Your task to perform on an android device: Open the calendar and show me this week's events? Image 0: 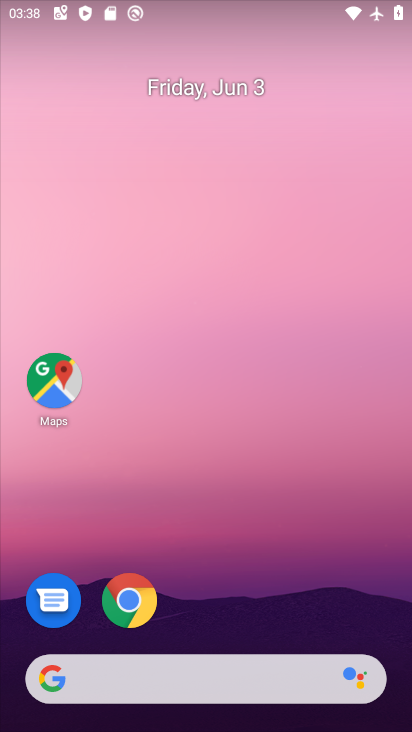
Step 0: drag from (221, 570) to (330, 47)
Your task to perform on an android device: Open the calendar and show me this week's events? Image 1: 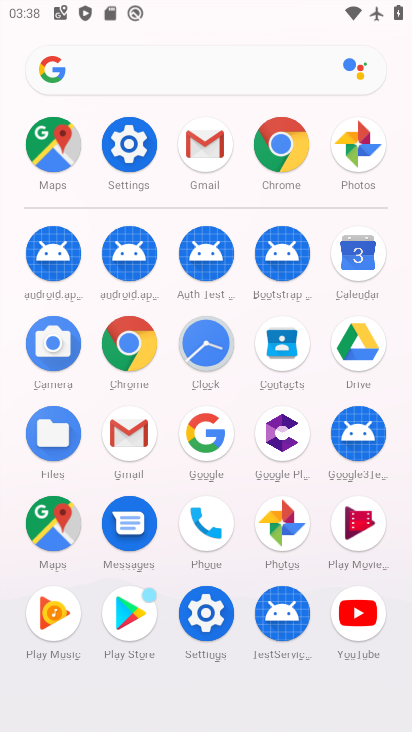
Step 1: click (365, 259)
Your task to perform on an android device: Open the calendar and show me this week's events? Image 2: 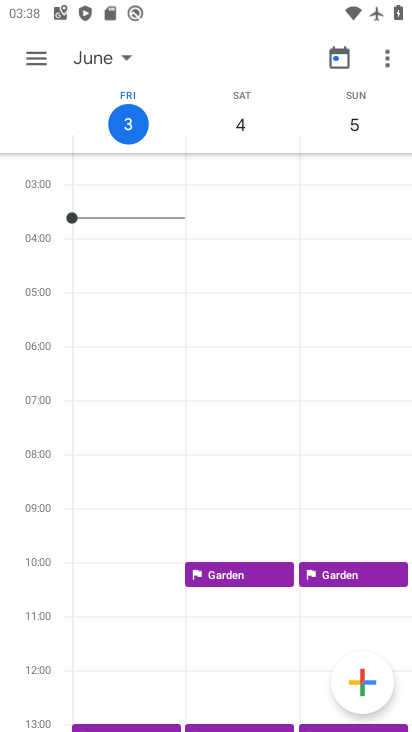
Step 2: click (35, 53)
Your task to perform on an android device: Open the calendar and show me this week's events? Image 3: 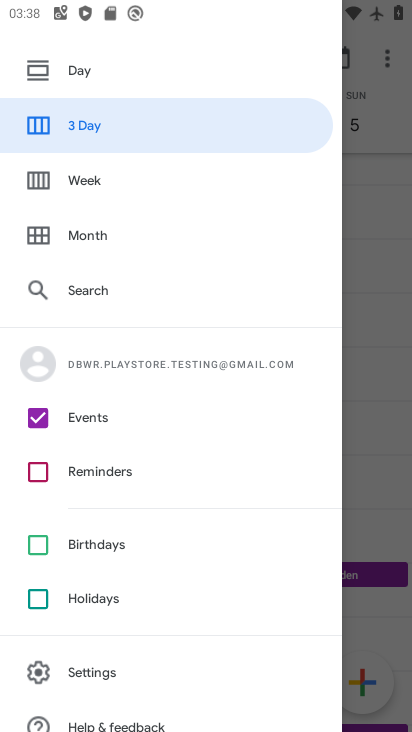
Step 3: click (91, 183)
Your task to perform on an android device: Open the calendar and show me this week's events? Image 4: 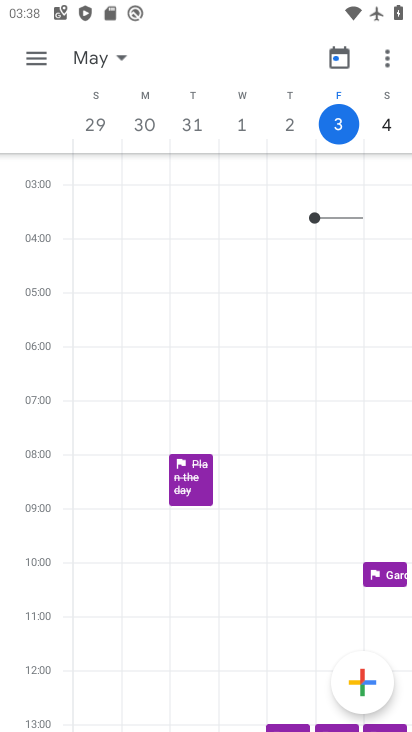
Step 4: task complete